Your task to perform on an android device: Search for a dining table on crateandbarrel.com Image 0: 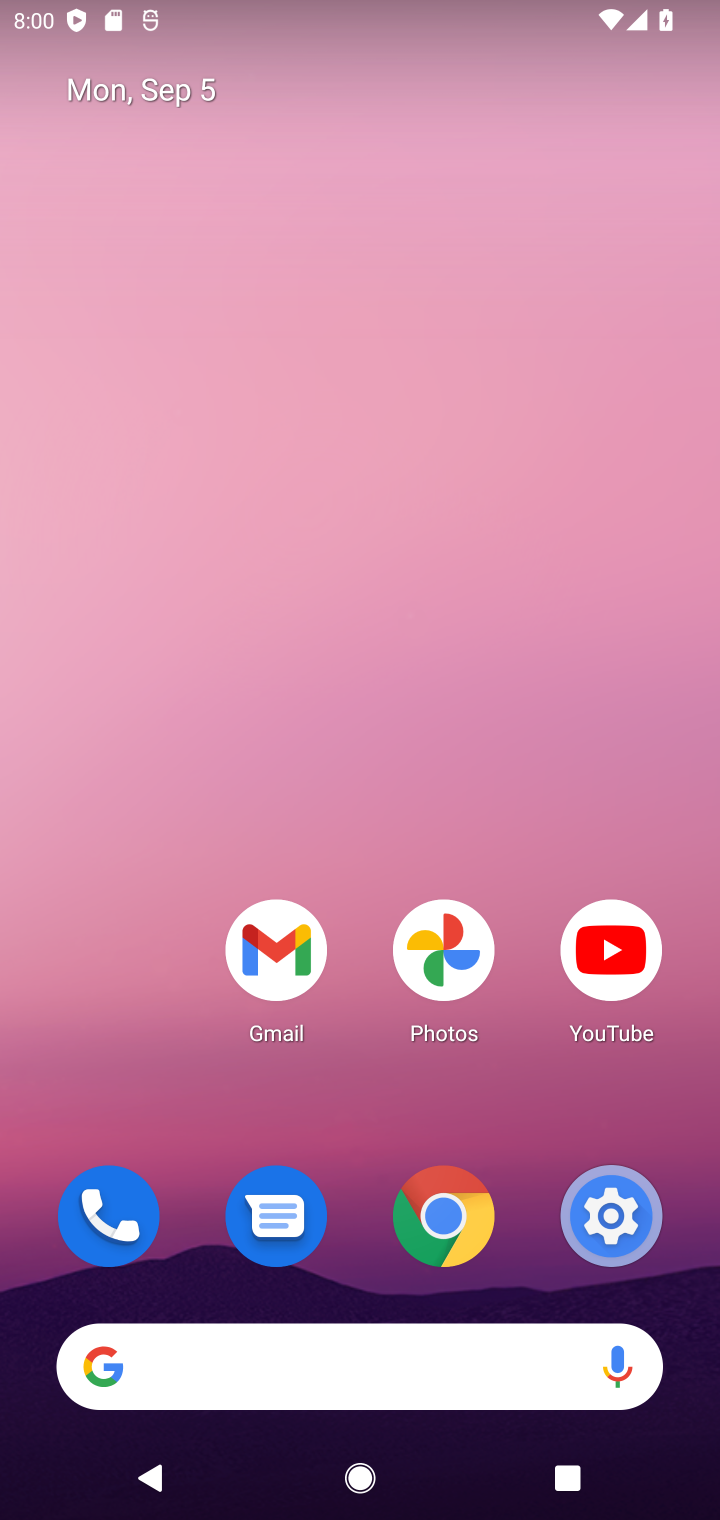
Step 0: click (245, 1353)
Your task to perform on an android device: Search for a dining table on crateandbarrel.com Image 1: 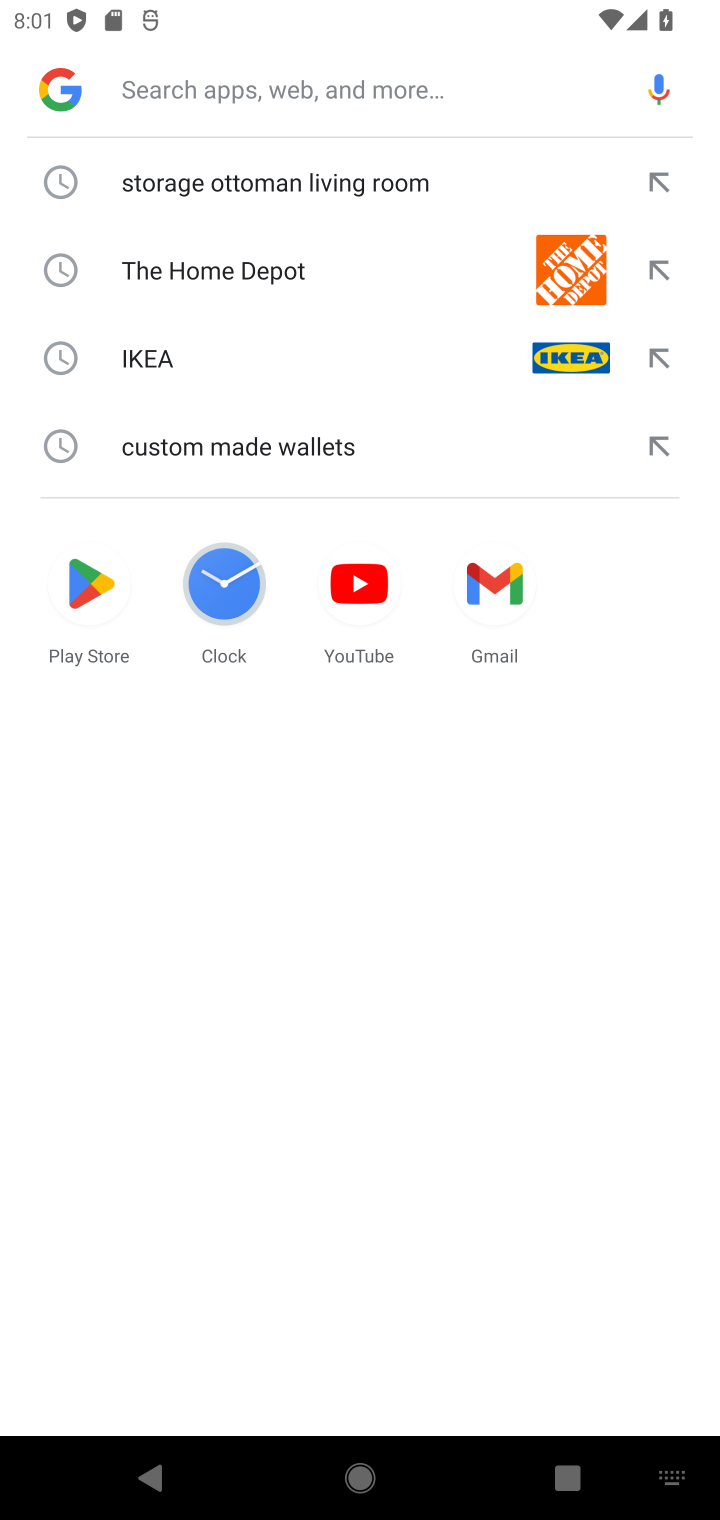
Step 1: type "crateandbarrel.com"
Your task to perform on an android device: Search for a dining table on crateandbarrel.com Image 2: 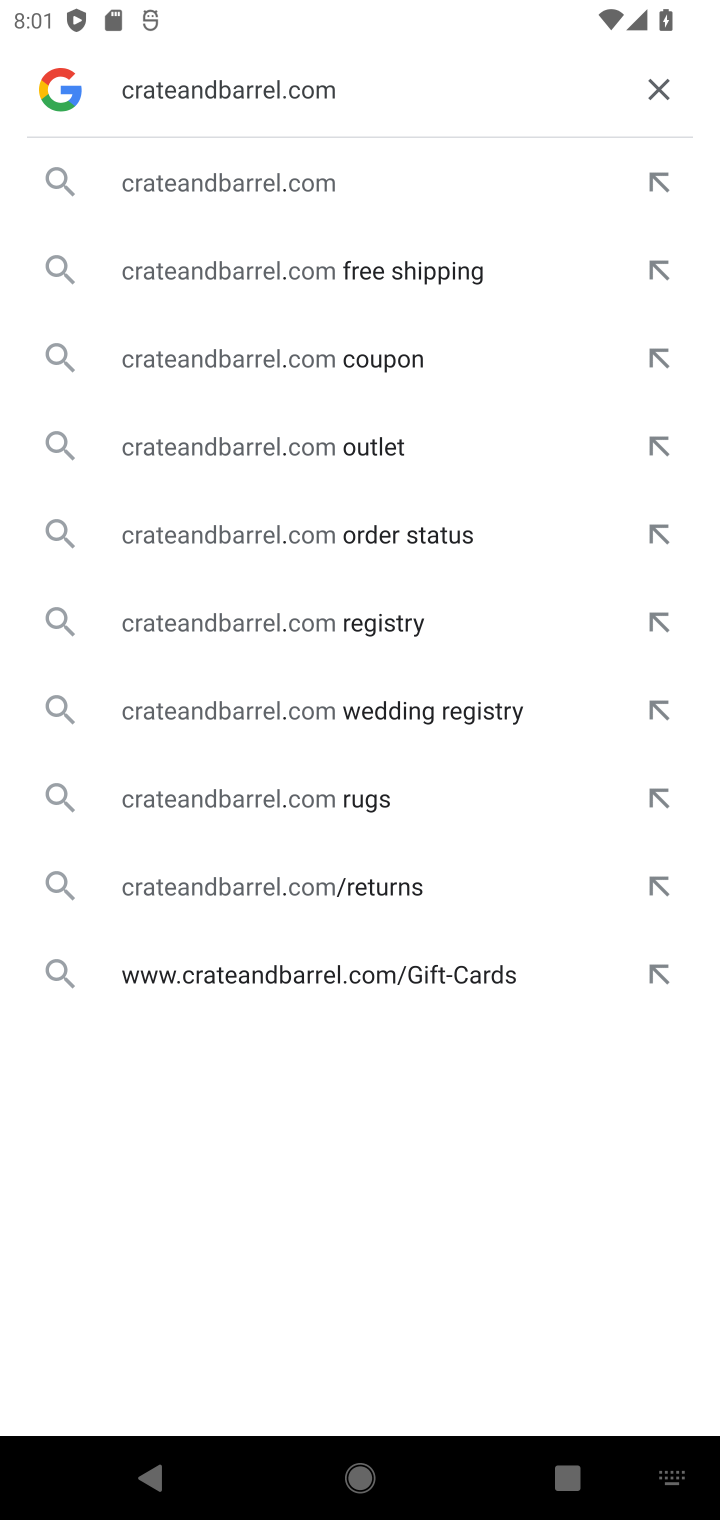
Step 2: click (215, 198)
Your task to perform on an android device: Search for a dining table on crateandbarrel.com Image 3: 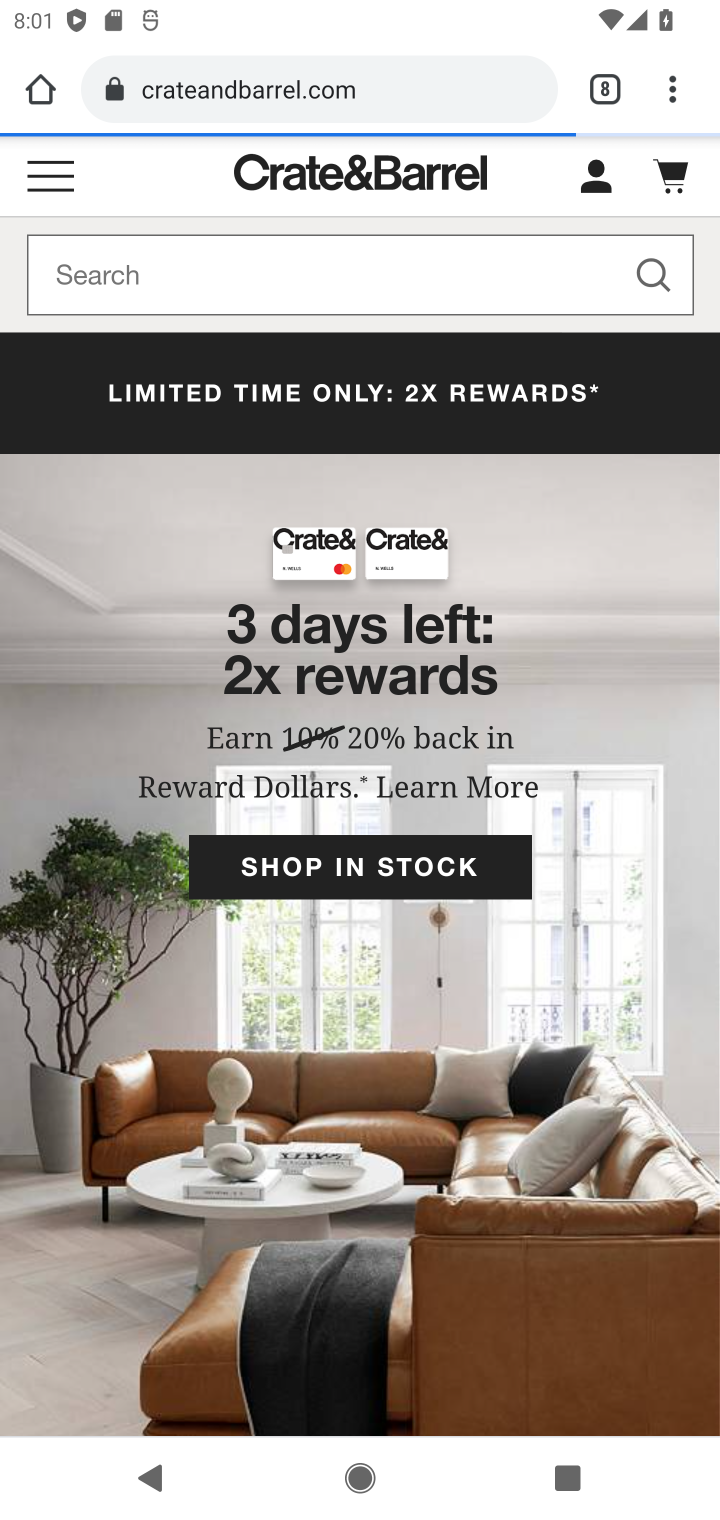
Step 3: drag from (294, 202) to (317, 275)
Your task to perform on an android device: Search for a dining table on crateandbarrel.com Image 4: 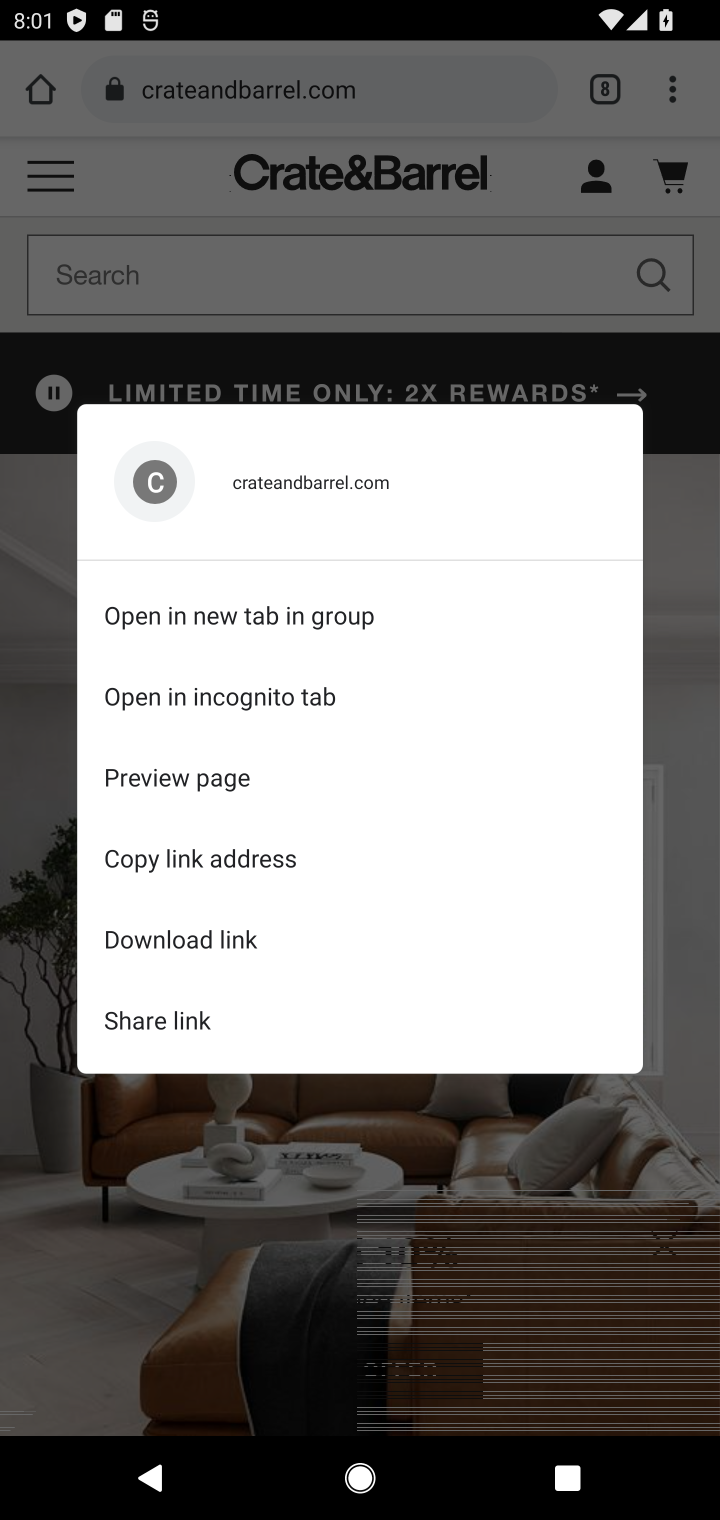
Step 4: click (287, 289)
Your task to perform on an android device: Search for a dining table on crateandbarrel.com Image 5: 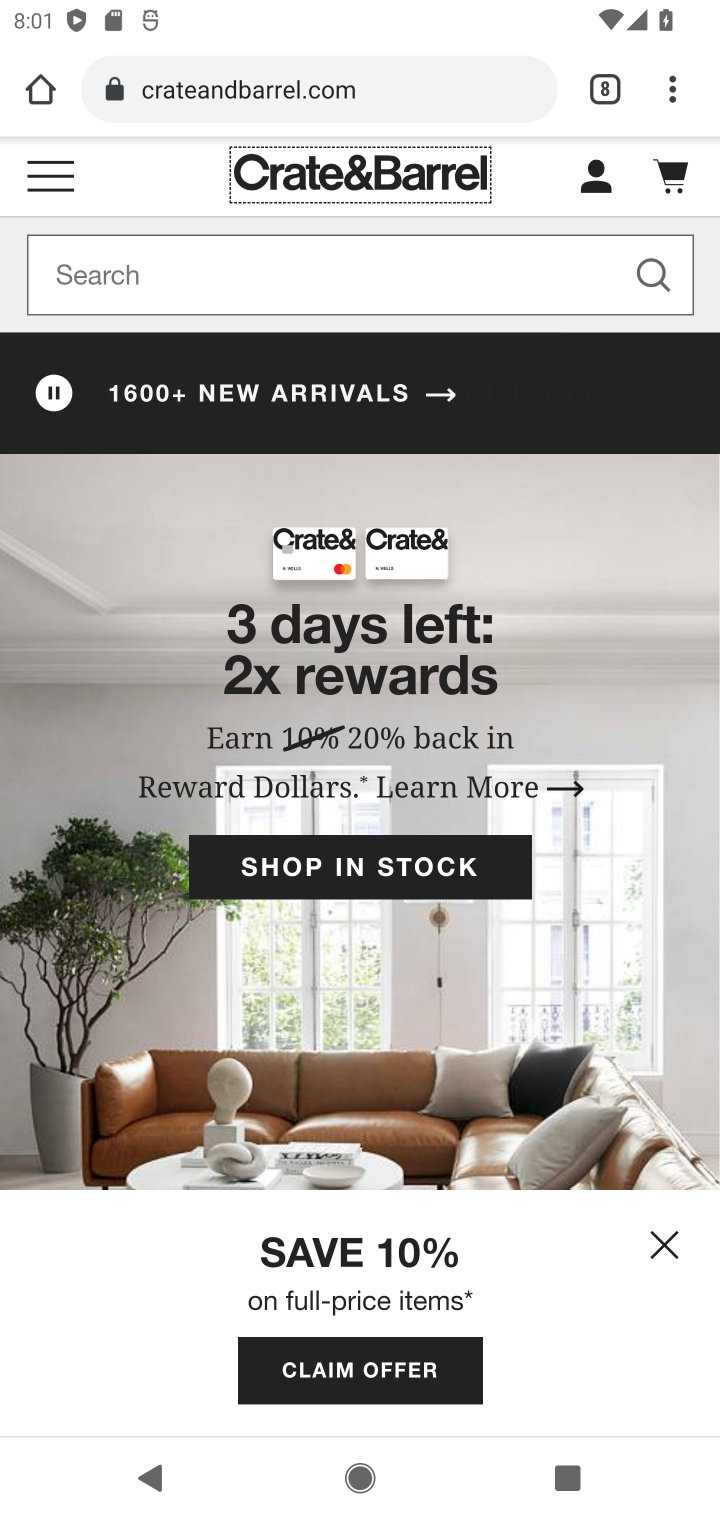
Step 5: click (333, 268)
Your task to perform on an android device: Search for a dining table on crateandbarrel.com Image 6: 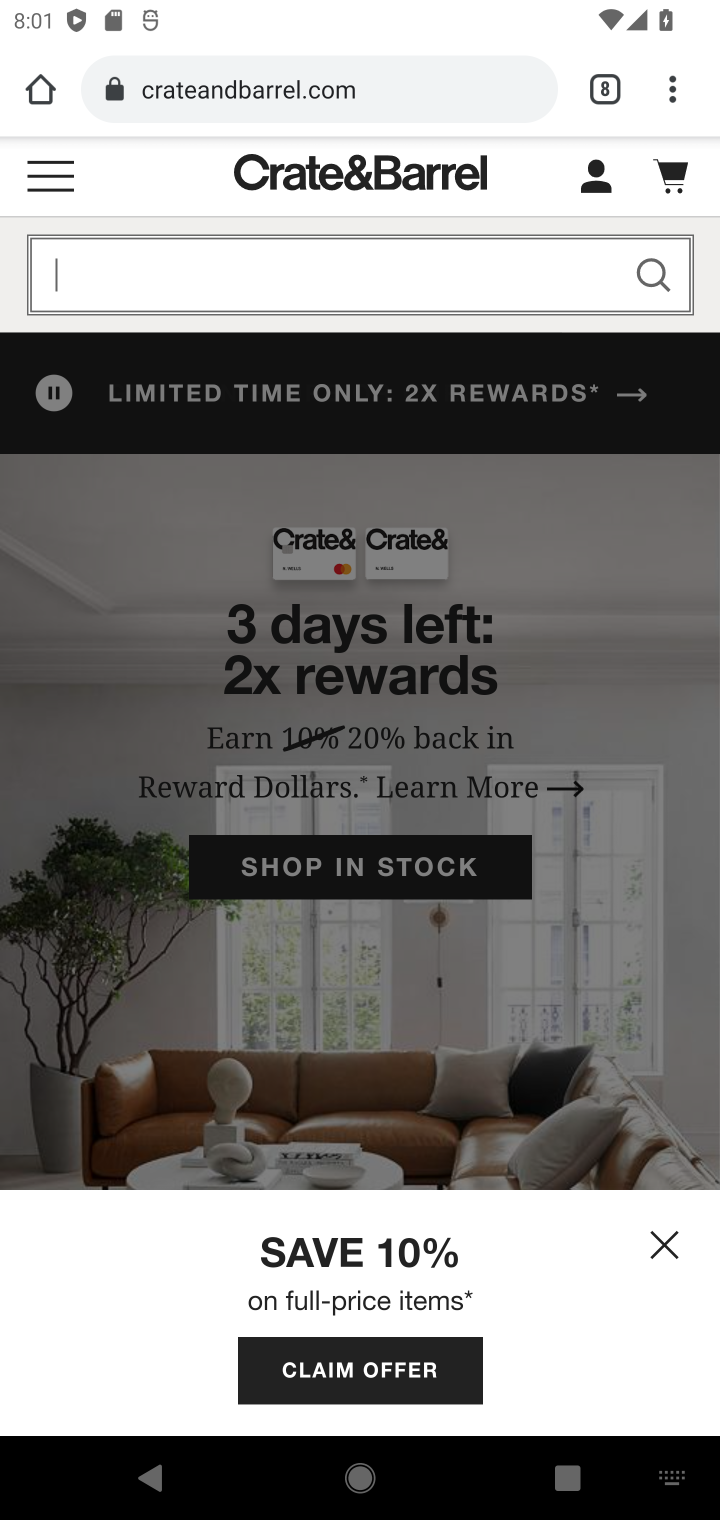
Step 6: type "dining table "
Your task to perform on an android device: Search for a dining table on crateandbarrel.com Image 7: 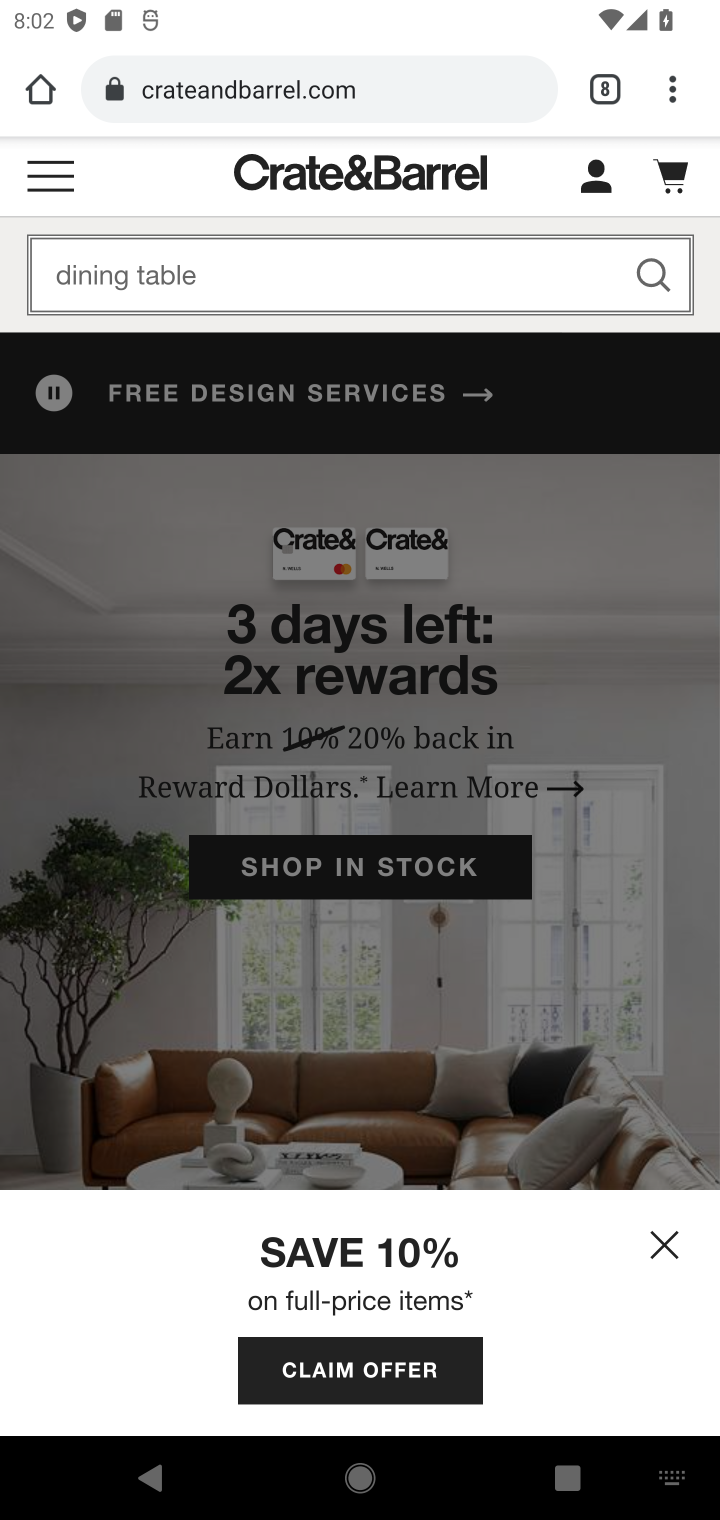
Step 7: click (666, 259)
Your task to perform on an android device: Search for a dining table on crateandbarrel.com Image 8: 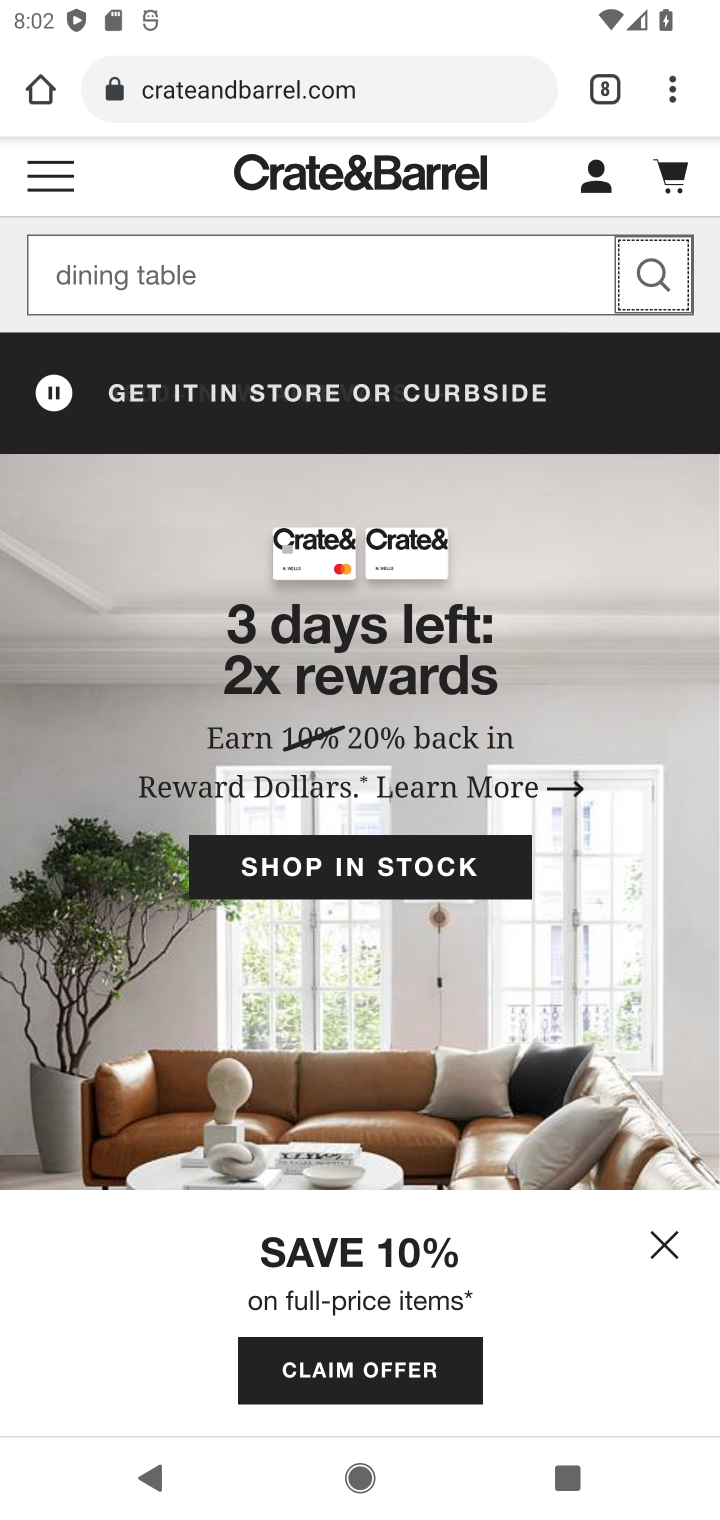
Step 8: click (666, 259)
Your task to perform on an android device: Search for a dining table on crateandbarrel.com Image 9: 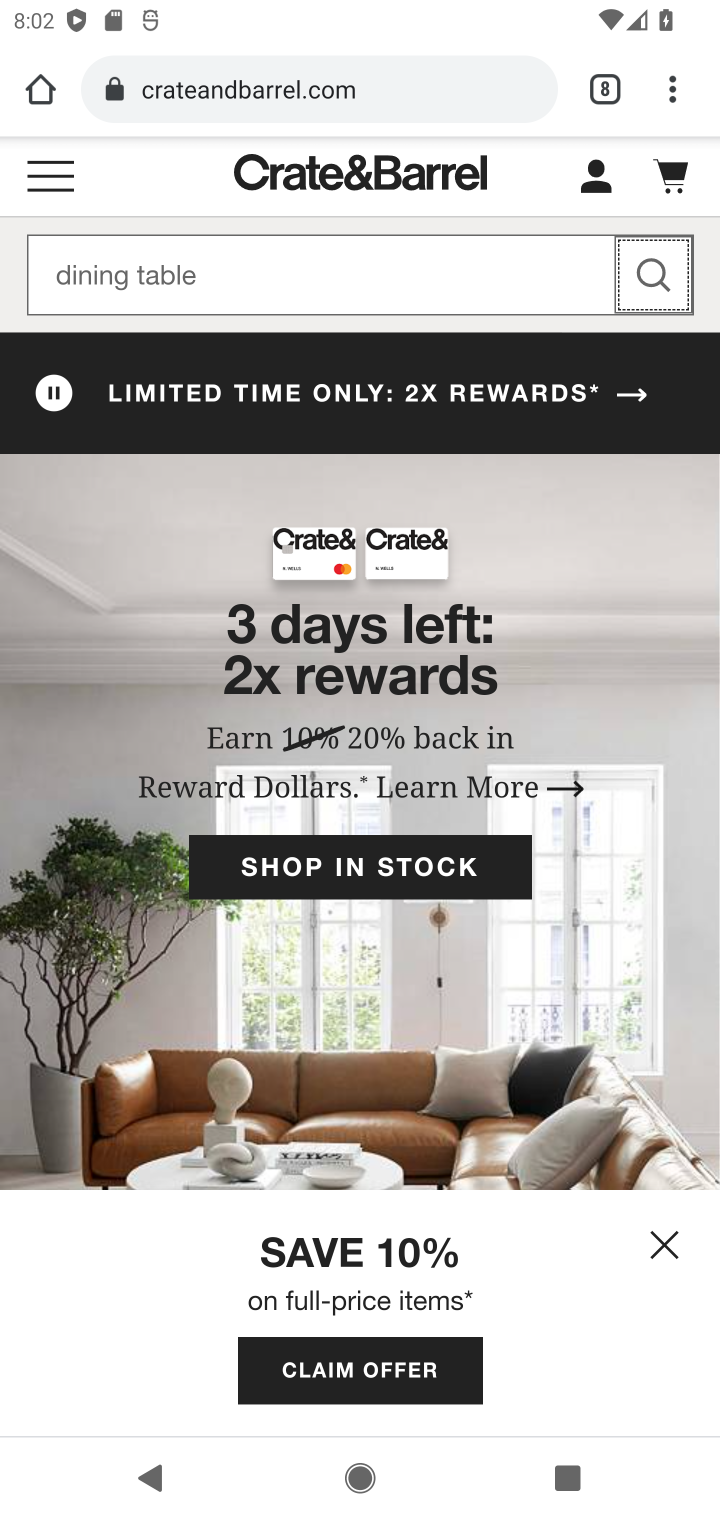
Step 9: click (666, 259)
Your task to perform on an android device: Search for a dining table on crateandbarrel.com Image 10: 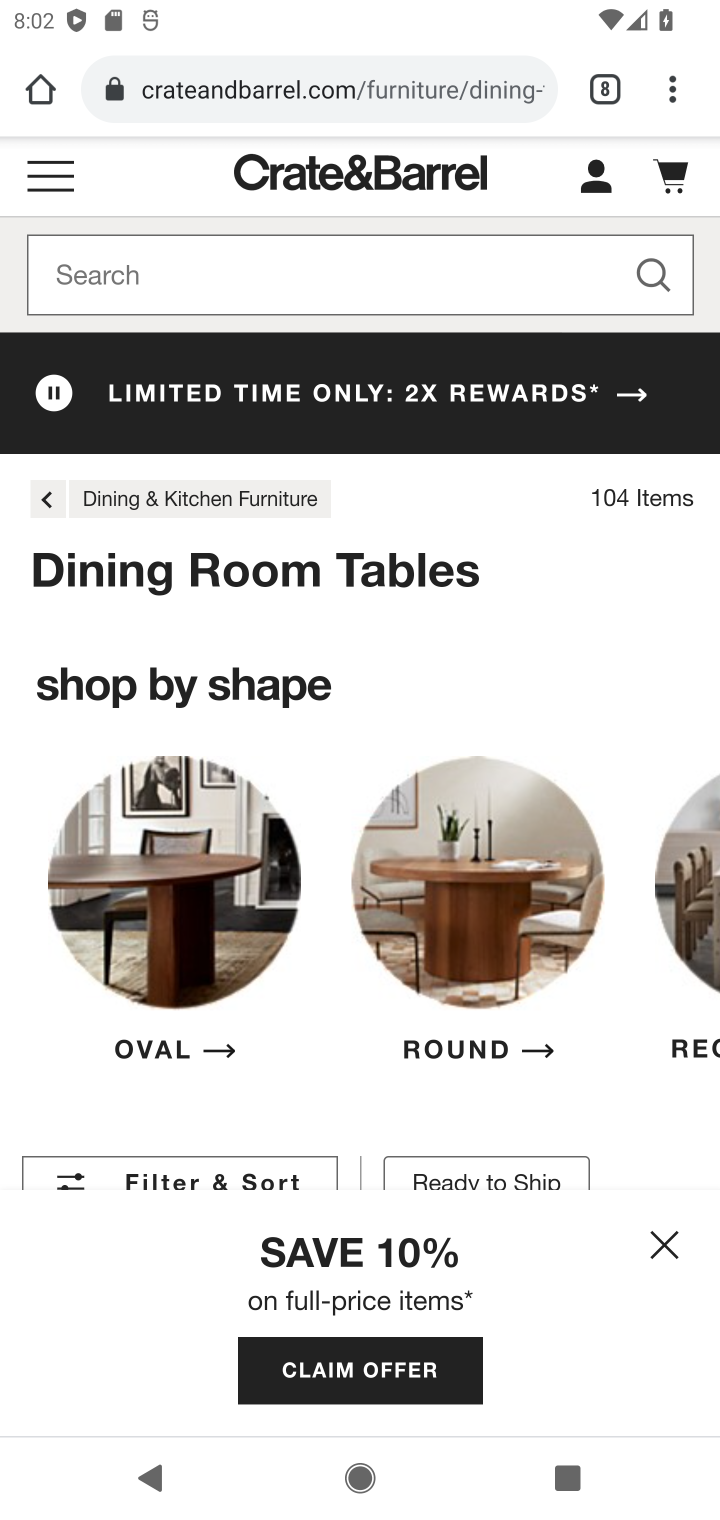
Step 10: task complete